Your task to perform on an android device: turn off translation in the chrome app Image 0: 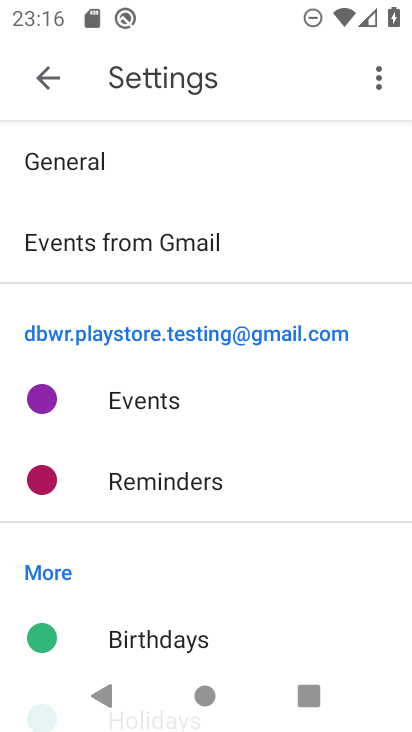
Step 0: press home button
Your task to perform on an android device: turn off translation in the chrome app Image 1: 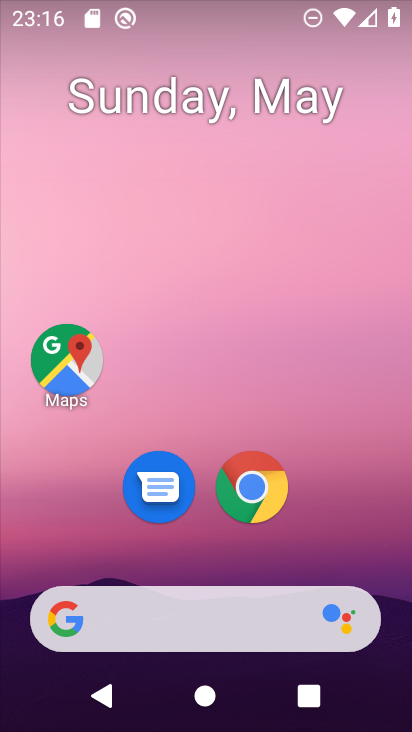
Step 1: click (270, 494)
Your task to perform on an android device: turn off translation in the chrome app Image 2: 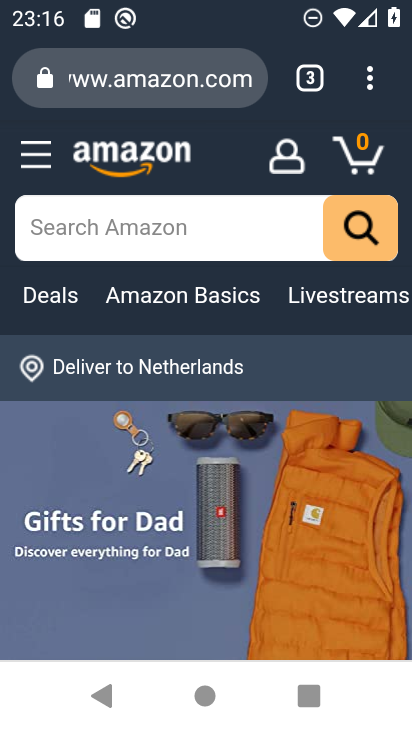
Step 2: click (376, 84)
Your task to perform on an android device: turn off translation in the chrome app Image 3: 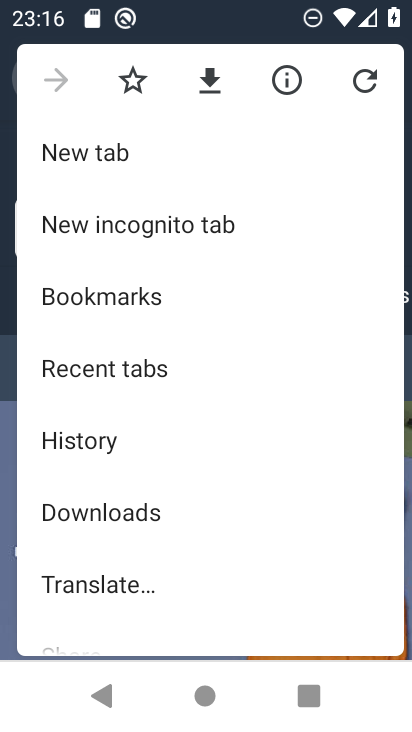
Step 3: drag from (229, 593) to (156, 238)
Your task to perform on an android device: turn off translation in the chrome app Image 4: 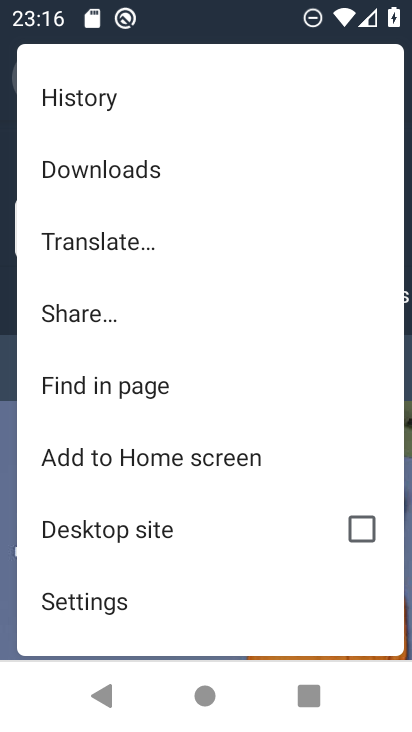
Step 4: click (211, 610)
Your task to perform on an android device: turn off translation in the chrome app Image 5: 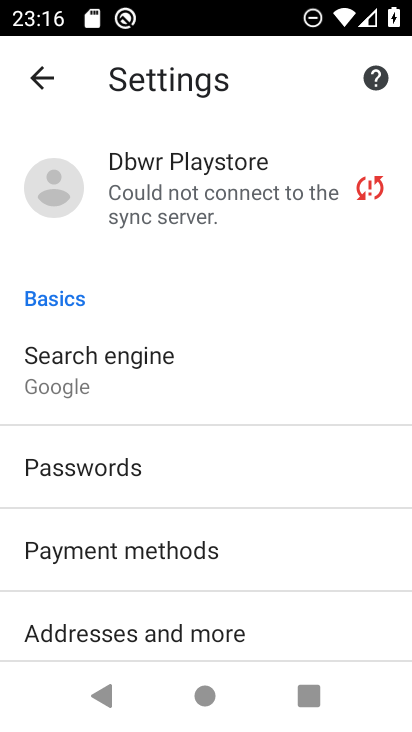
Step 5: drag from (233, 650) to (159, 364)
Your task to perform on an android device: turn off translation in the chrome app Image 6: 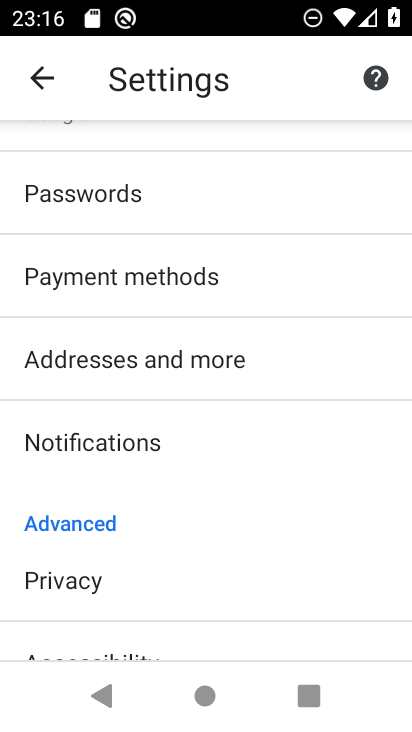
Step 6: drag from (209, 557) to (180, 183)
Your task to perform on an android device: turn off translation in the chrome app Image 7: 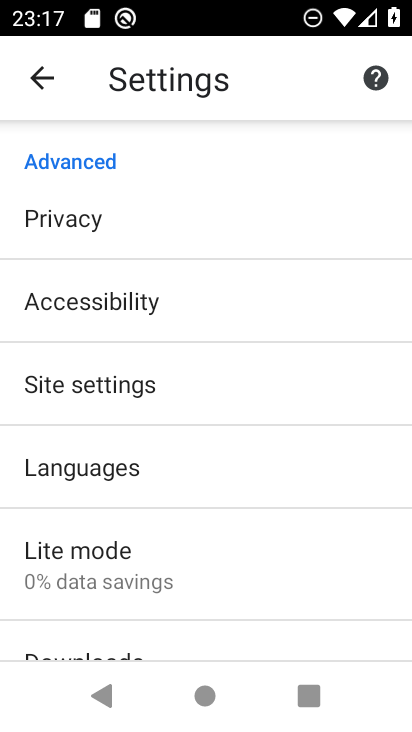
Step 7: click (211, 469)
Your task to perform on an android device: turn off translation in the chrome app Image 8: 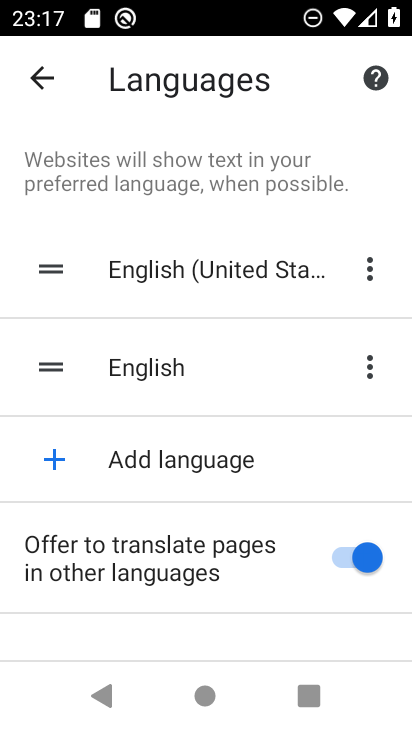
Step 8: click (342, 554)
Your task to perform on an android device: turn off translation in the chrome app Image 9: 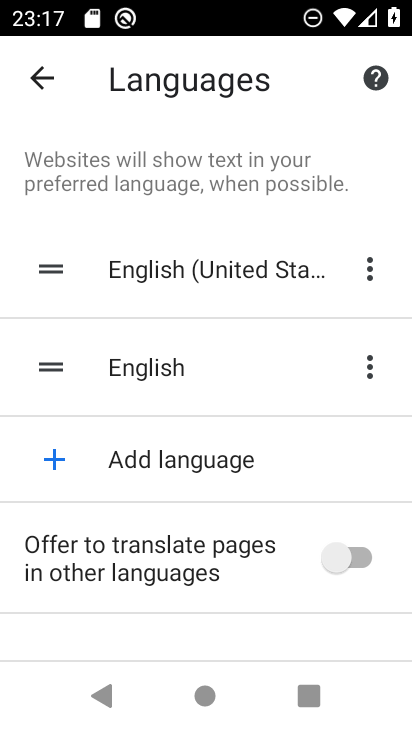
Step 9: task complete